Your task to perform on an android device: Empty the shopping cart on amazon.com. Add "corsair k70" to the cart on amazon.com Image 0: 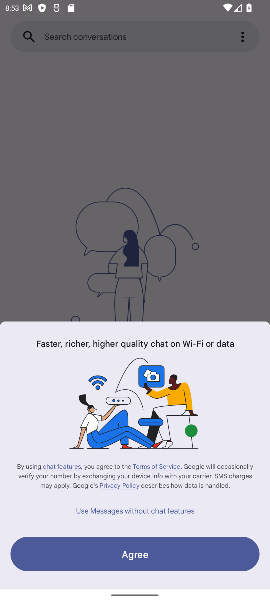
Step 0: click (141, 242)
Your task to perform on an android device: Empty the shopping cart on amazon.com. Add "corsair k70" to the cart on amazon.com Image 1: 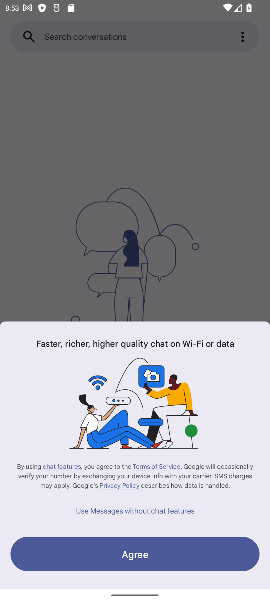
Step 1: click (118, 535)
Your task to perform on an android device: Empty the shopping cart on amazon.com. Add "corsair k70" to the cart on amazon.com Image 2: 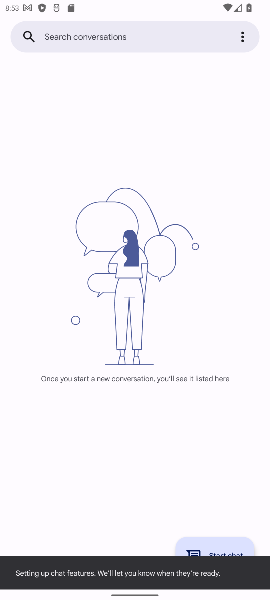
Step 2: press home button
Your task to perform on an android device: Empty the shopping cart on amazon.com. Add "corsair k70" to the cart on amazon.com Image 3: 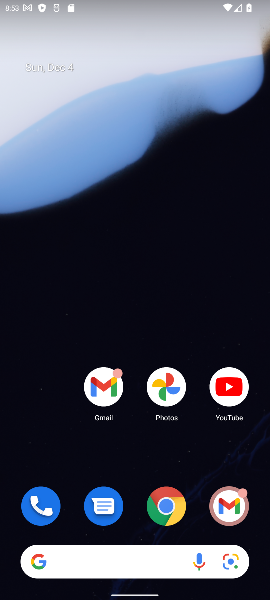
Step 3: click (156, 507)
Your task to perform on an android device: Empty the shopping cart on amazon.com. Add "corsair k70" to the cart on amazon.com Image 4: 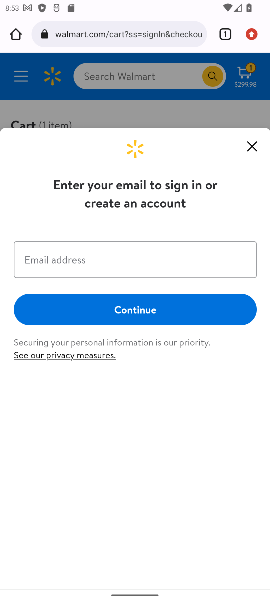
Step 4: click (95, 34)
Your task to perform on an android device: Empty the shopping cart on amazon.com. Add "corsair k70" to the cart on amazon.com Image 5: 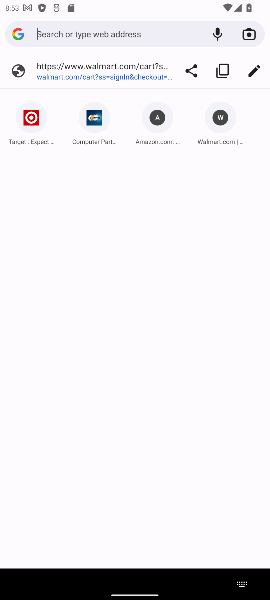
Step 5: click (153, 128)
Your task to perform on an android device: Empty the shopping cart on amazon.com. Add "corsair k70" to the cart on amazon.com Image 6: 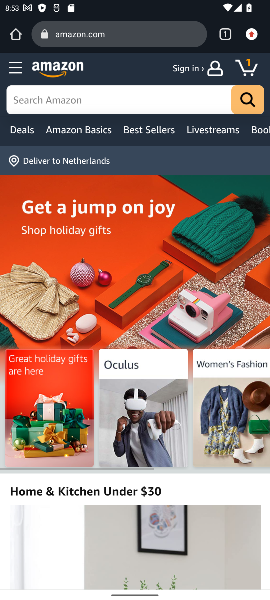
Step 6: click (83, 91)
Your task to perform on an android device: Empty the shopping cart on amazon.com. Add "corsair k70" to the cart on amazon.com Image 7: 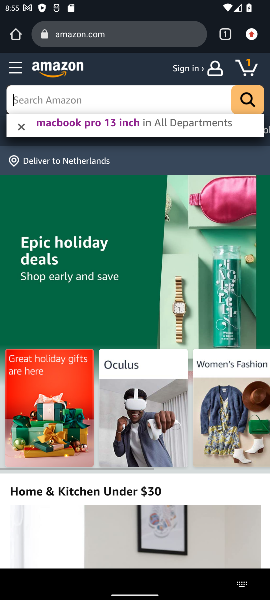
Step 7: click (252, 66)
Your task to perform on an android device: Empty the shopping cart on amazon.com. Add "corsair k70" to the cart on amazon.com Image 8: 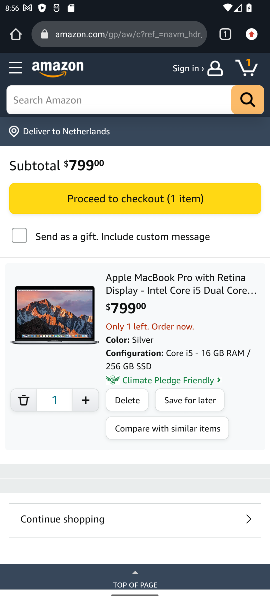
Step 8: click (27, 397)
Your task to perform on an android device: Empty the shopping cart on amazon.com. Add "corsair k70" to the cart on amazon.com Image 9: 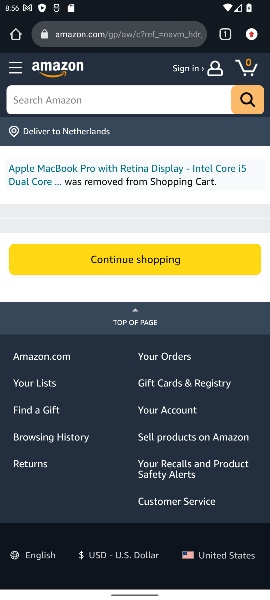
Step 9: click (143, 91)
Your task to perform on an android device: Empty the shopping cart on amazon.com. Add "corsair k70" to the cart on amazon.com Image 10: 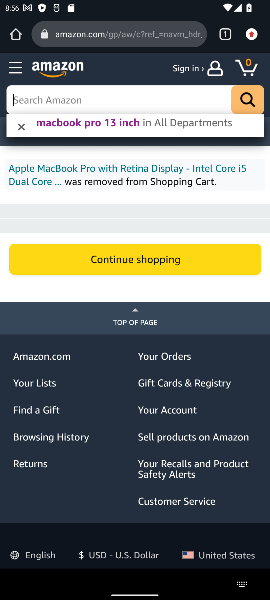
Step 10: type "corsair k70"
Your task to perform on an android device: Empty the shopping cart on amazon.com. Add "corsair k70" to the cart on amazon.com Image 11: 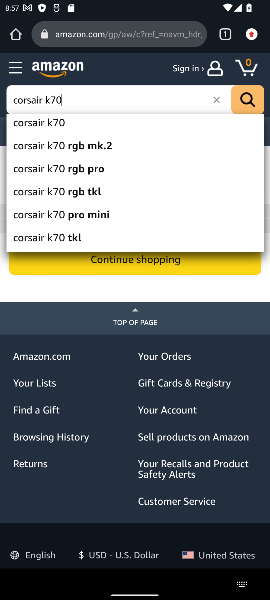
Step 11: click (256, 100)
Your task to perform on an android device: Empty the shopping cart on amazon.com. Add "corsair k70" to the cart on amazon.com Image 12: 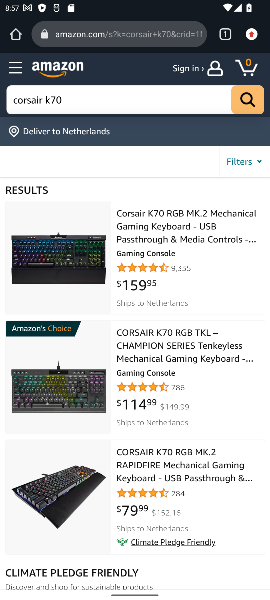
Step 12: click (168, 220)
Your task to perform on an android device: Empty the shopping cart on amazon.com. Add "corsair k70" to the cart on amazon.com Image 13: 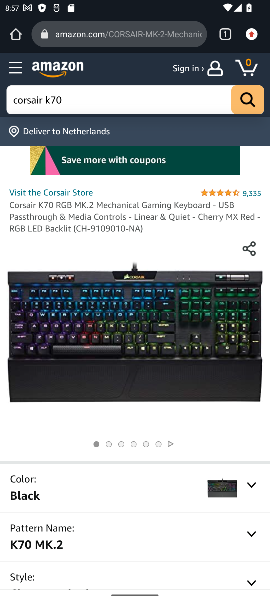
Step 13: drag from (112, 455) to (90, 153)
Your task to perform on an android device: Empty the shopping cart on amazon.com. Add "corsair k70" to the cart on amazon.com Image 14: 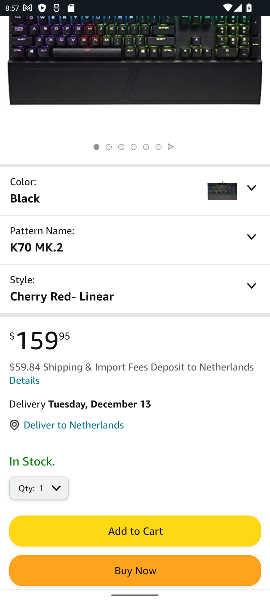
Step 14: click (143, 527)
Your task to perform on an android device: Empty the shopping cart on amazon.com. Add "corsair k70" to the cart on amazon.com Image 15: 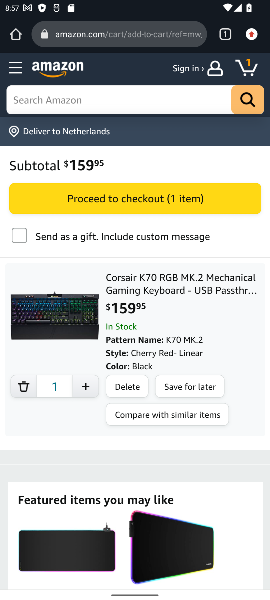
Step 15: task complete